Your task to perform on an android device: search for starred emails in the gmail app Image 0: 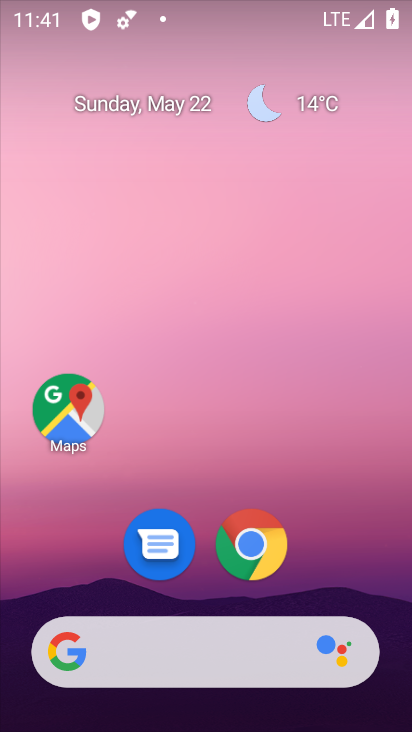
Step 0: drag from (287, 596) to (270, 123)
Your task to perform on an android device: search for starred emails in the gmail app Image 1: 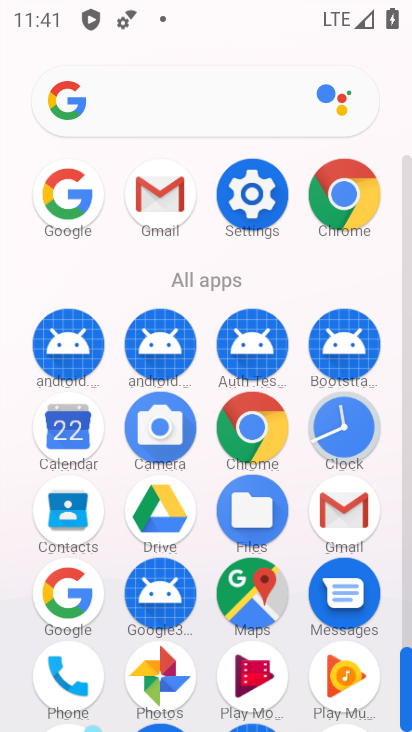
Step 1: click (162, 195)
Your task to perform on an android device: search for starred emails in the gmail app Image 2: 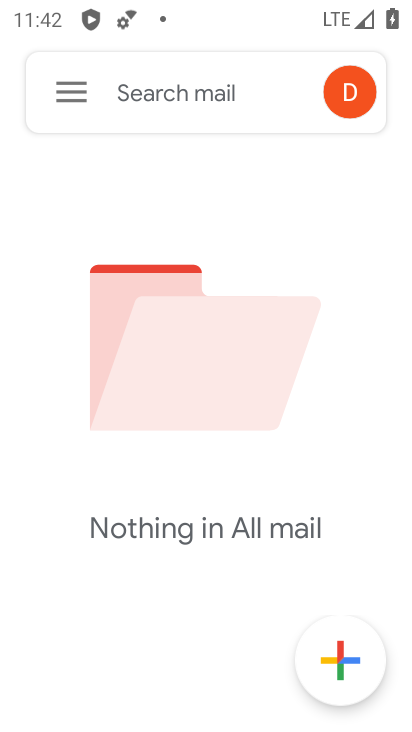
Step 2: click (63, 93)
Your task to perform on an android device: search for starred emails in the gmail app Image 3: 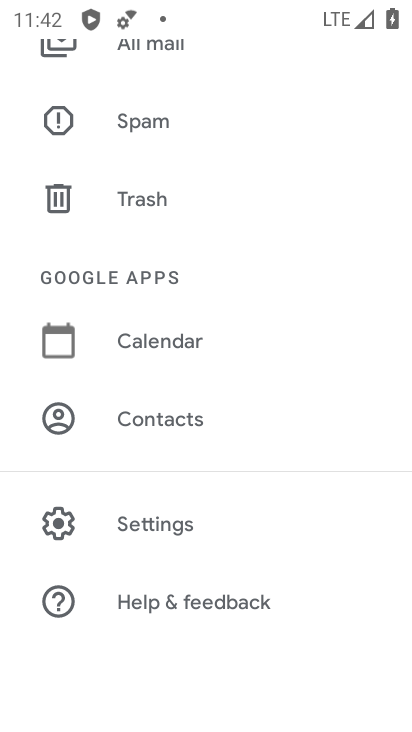
Step 3: drag from (213, 136) to (183, 416)
Your task to perform on an android device: search for starred emails in the gmail app Image 4: 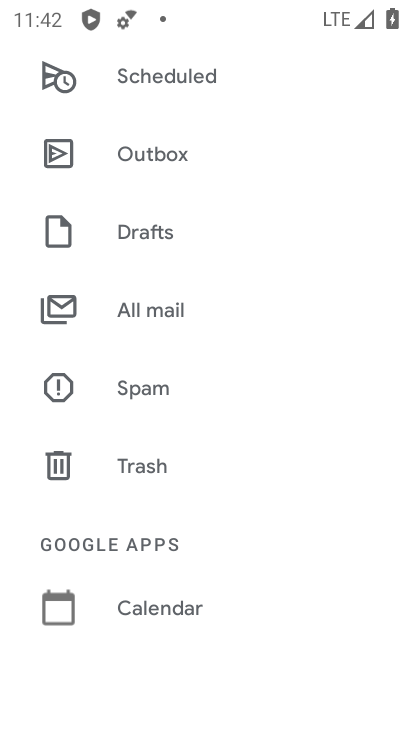
Step 4: drag from (197, 202) to (167, 464)
Your task to perform on an android device: search for starred emails in the gmail app Image 5: 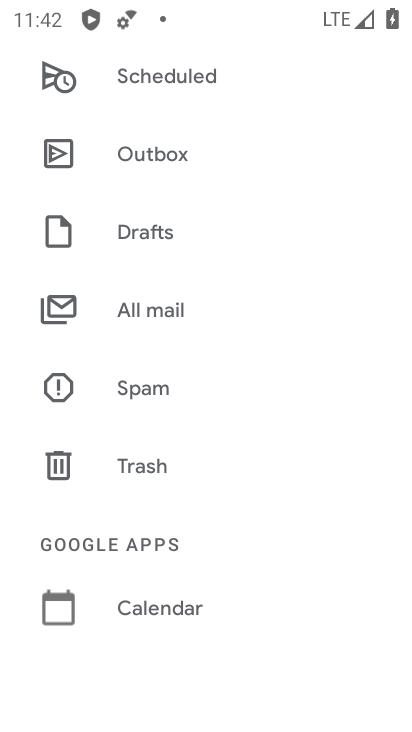
Step 5: drag from (175, 239) to (141, 506)
Your task to perform on an android device: search for starred emails in the gmail app Image 6: 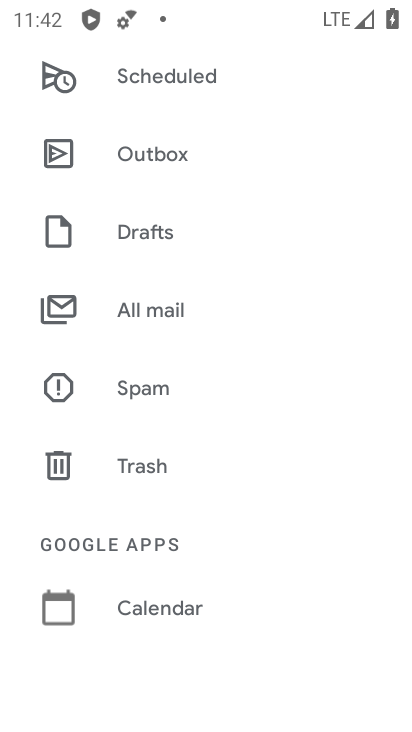
Step 6: drag from (172, 167) to (172, 424)
Your task to perform on an android device: search for starred emails in the gmail app Image 7: 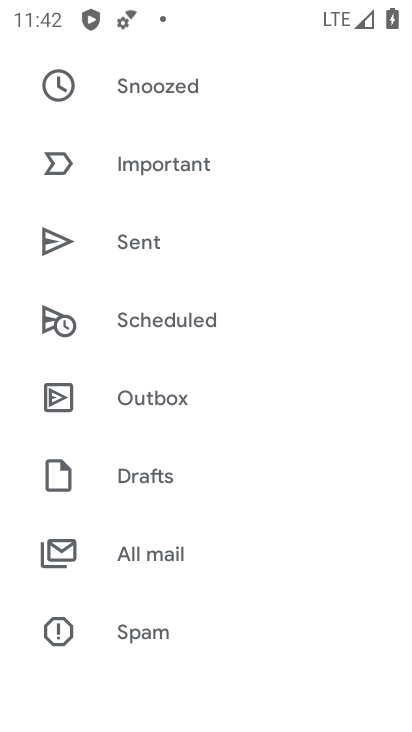
Step 7: drag from (155, 139) to (156, 413)
Your task to perform on an android device: search for starred emails in the gmail app Image 8: 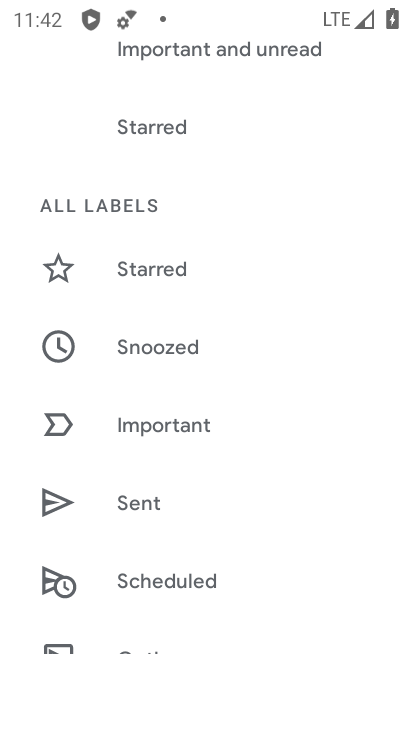
Step 8: click (142, 279)
Your task to perform on an android device: search for starred emails in the gmail app Image 9: 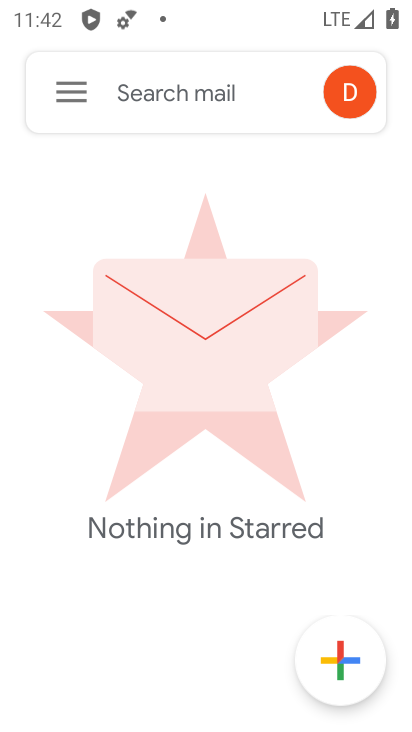
Step 9: task complete